Your task to perform on an android device: Open Yahoo.com Image 0: 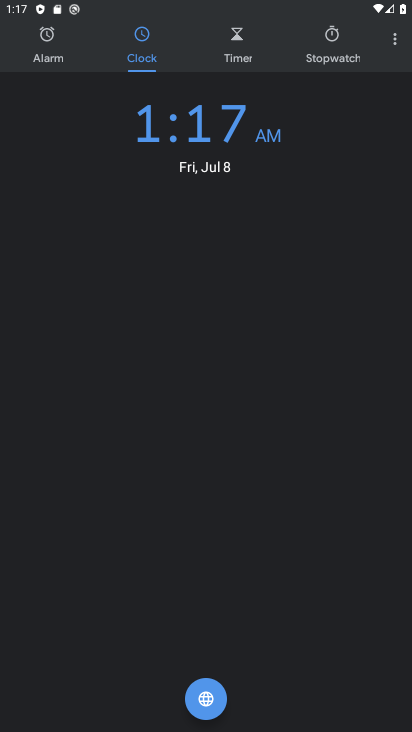
Step 0: press home button
Your task to perform on an android device: Open Yahoo.com Image 1: 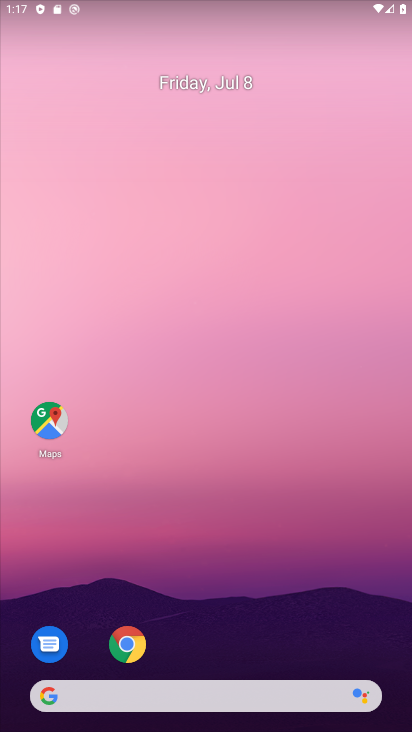
Step 1: click (212, 694)
Your task to perform on an android device: Open Yahoo.com Image 2: 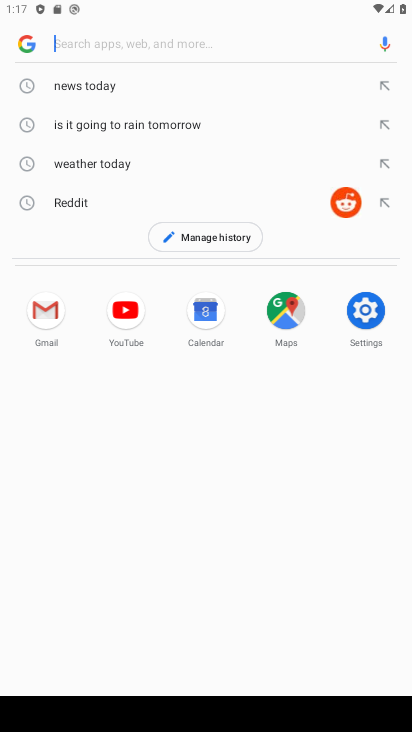
Step 2: type "Yahoo.com"
Your task to perform on an android device: Open Yahoo.com Image 3: 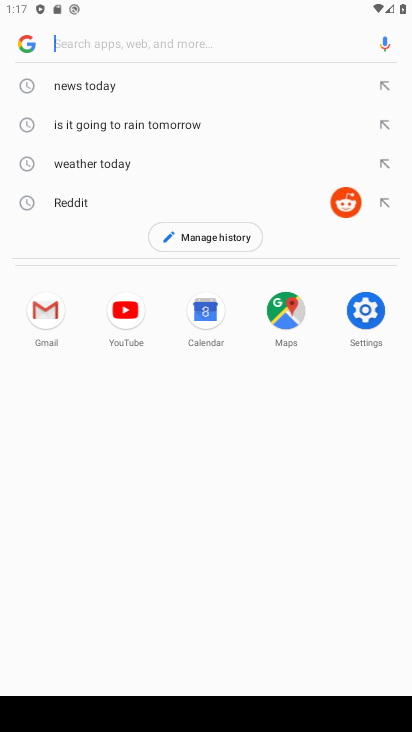
Step 3: click (128, 40)
Your task to perform on an android device: Open Yahoo.com Image 4: 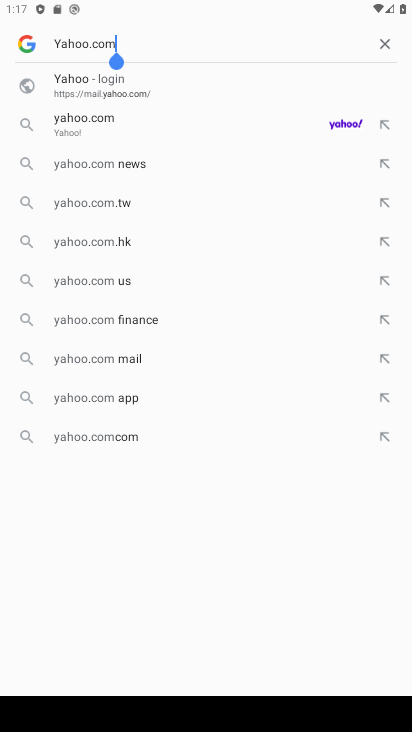
Step 4: click (90, 130)
Your task to perform on an android device: Open Yahoo.com Image 5: 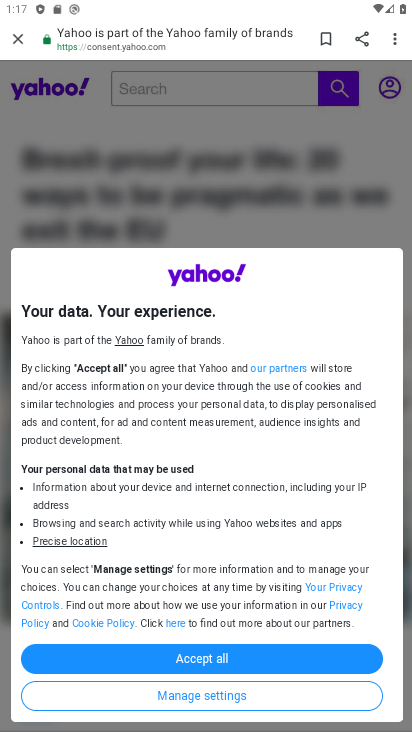
Step 5: click (208, 660)
Your task to perform on an android device: Open Yahoo.com Image 6: 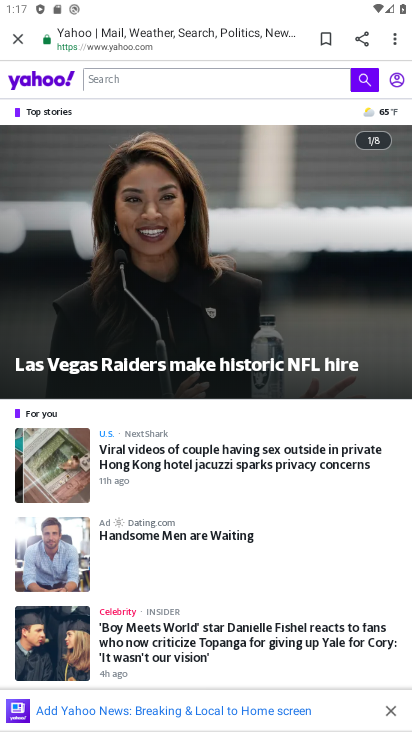
Step 6: task complete